Your task to perform on an android device: toggle airplane mode Image 0: 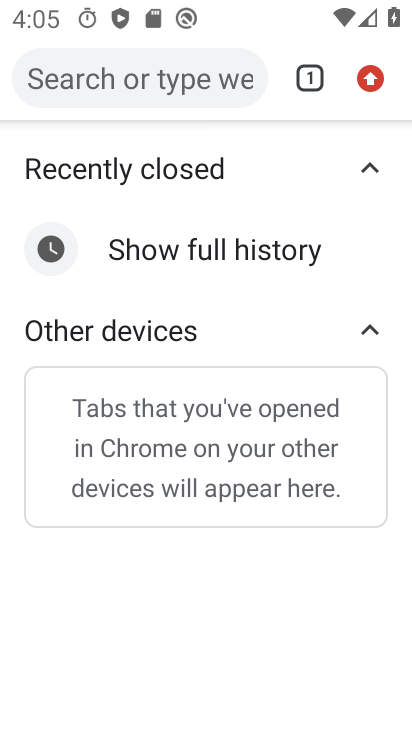
Step 0: press home button
Your task to perform on an android device: toggle airplane mode Image 1: 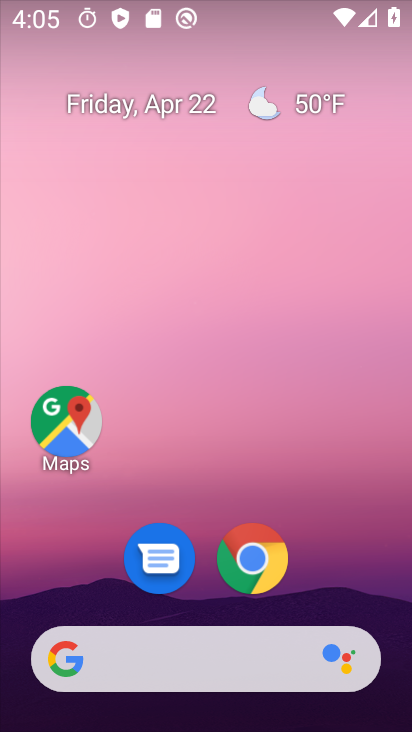
Step 1: drag from (299, 522) to (265, 203)
Your task to perform on an android device: toggle airplane mode Image 2: 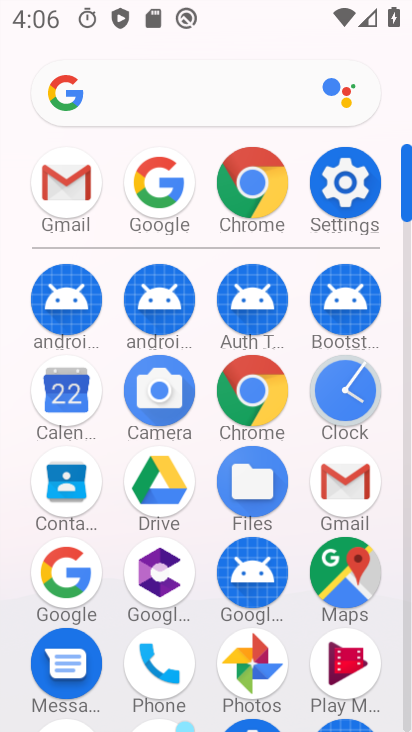
Step 2: click (338, 205)
Your task to perform on an android device: toggle airplane mode Image 3: 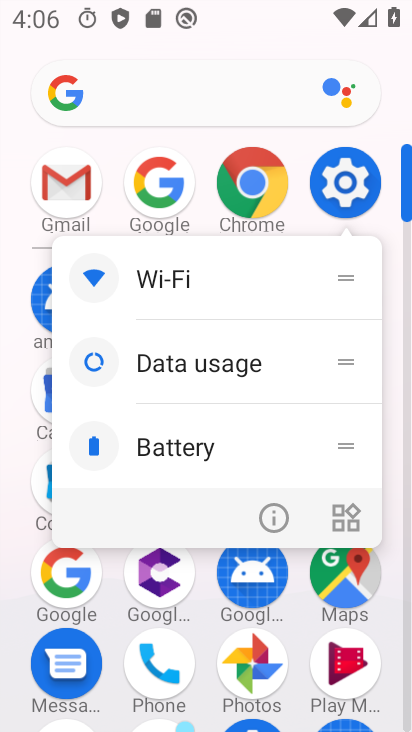
Step 3: click (350, 187)
Your task to perform on an android device: toggle airplane mode Image 4: 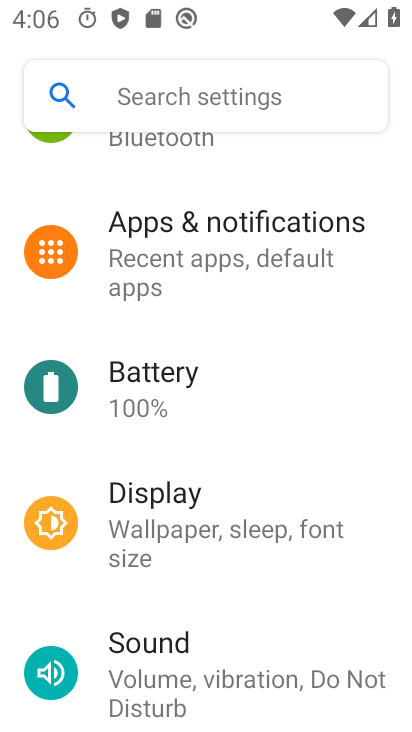
Step 4: drag from (266, 275) to (218, 666)
Your task to perform on an android device: toggle airplane mode Image 5: 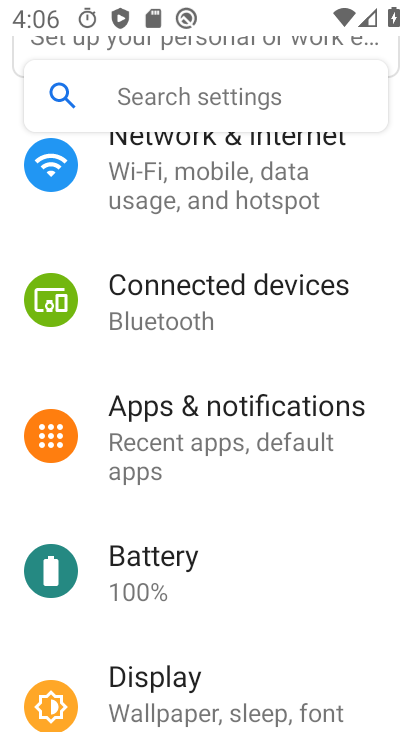
Step 5: drag from (260, 308) to (207, 631)
Your task to perform on an android device: toggle airplane mode Image 6: 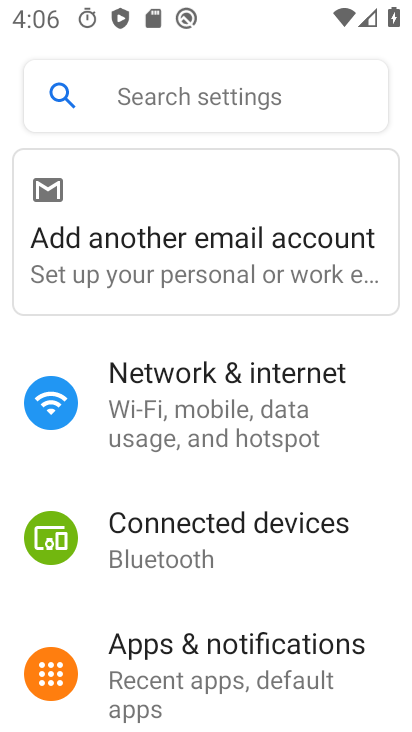
Step 6: click (206, 412)
Your task to perform on an android device: toggle airplane mode Image 7: 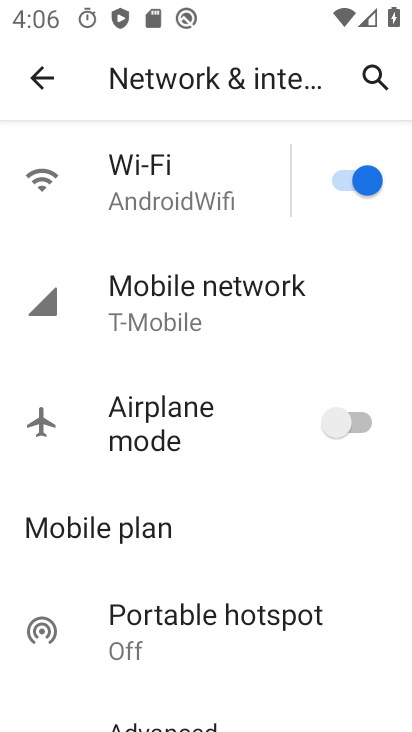
Step 7: click (366, 427)
Your task to perform on an android device: toggle airplane mode Image 8: 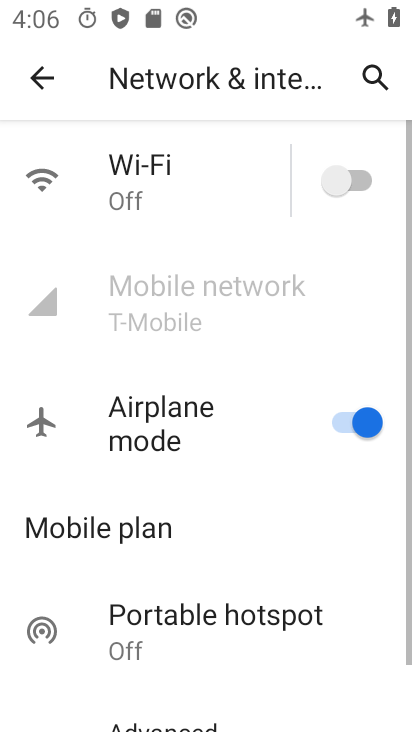
Step 8: task complete